Your task to perform on an android device: open app "PlayWell" (install if not already installed) Image 0: 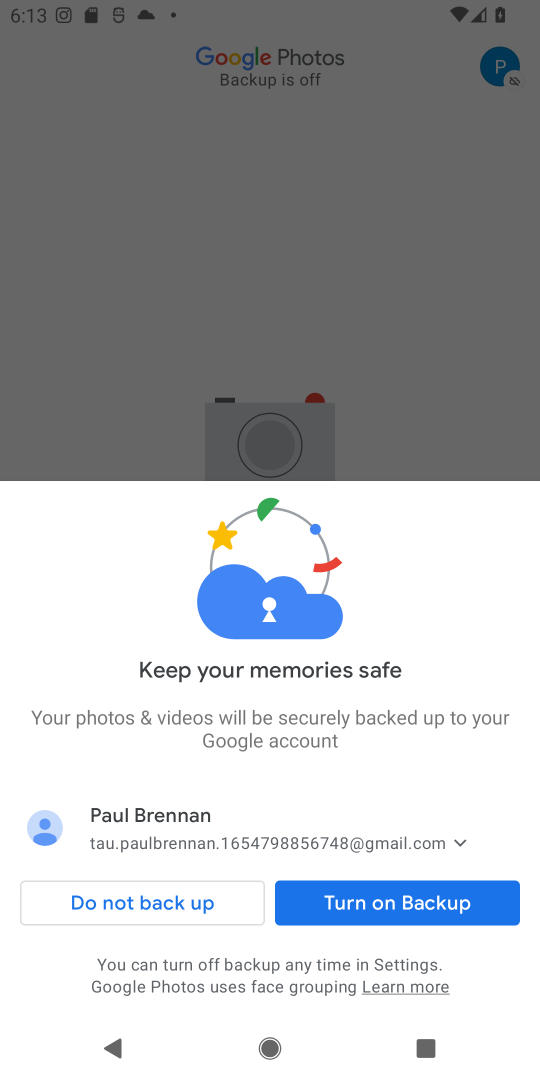
Step 0: press home button
Your task to perform on an android device: open app "PlayWell" (install if not already installed) Image 1: 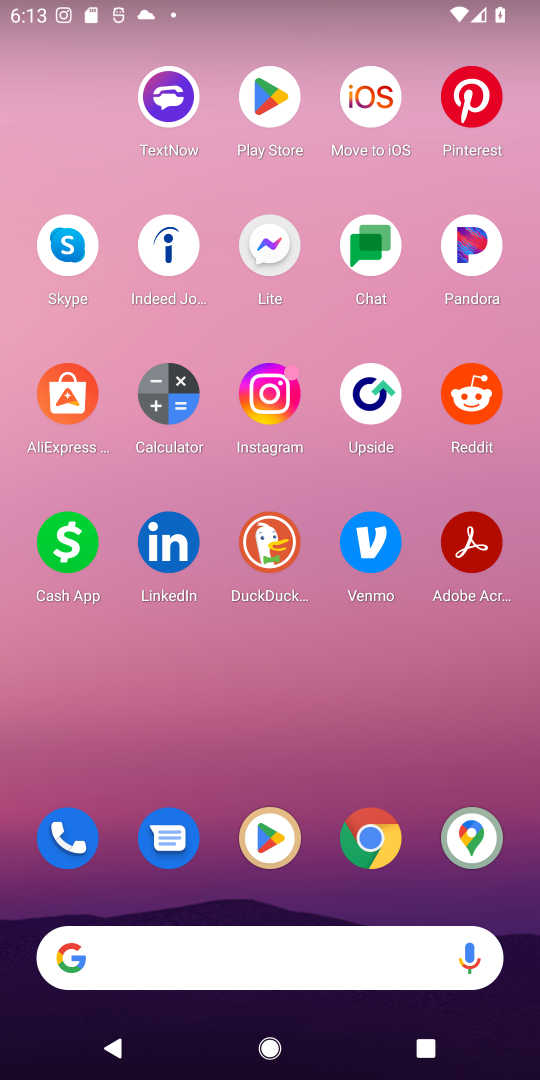
Step 1: click (273, 844)
Your task to perform on an android device: open app "PlayWell" (install if not already installed) Image 2: 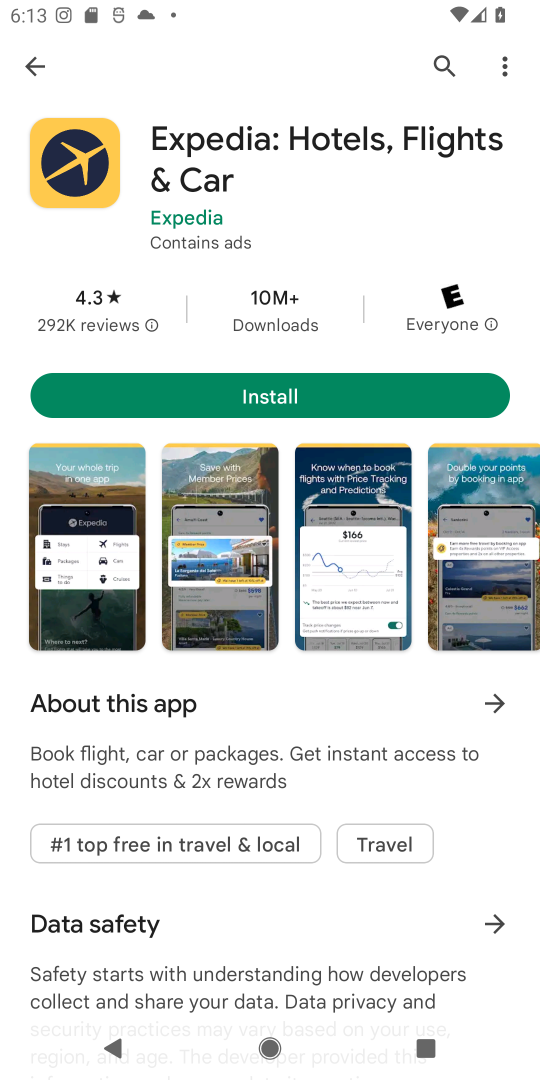
Step 2: click (440, 61)
Your task to perform on an android device: open app "PlayWell" (install if not already installed) Image 3: 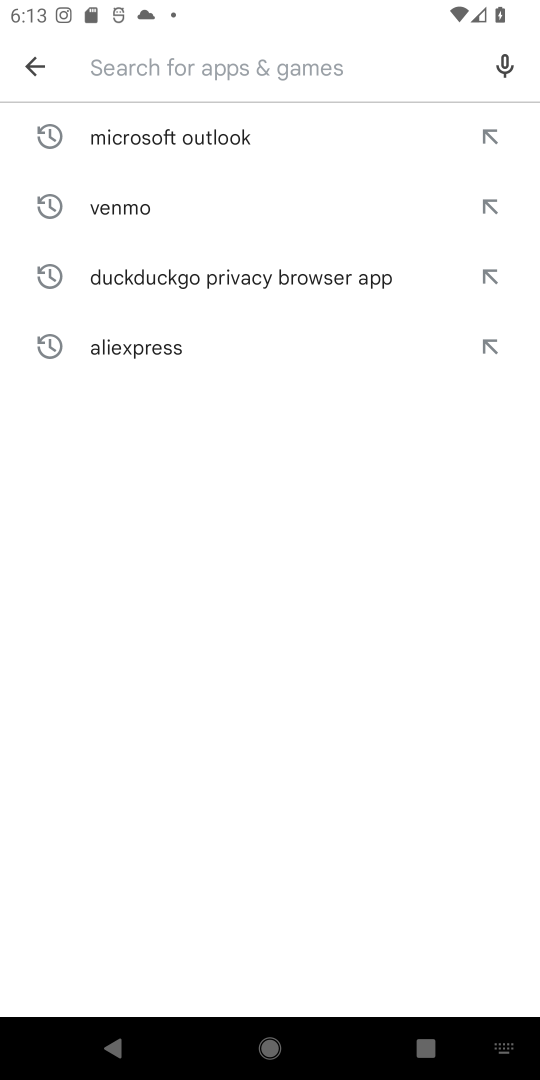
Step 3: type "PlayWell"
Your task to perform on an android device: open app "PlayWell" (install if not already installed) Image 4: 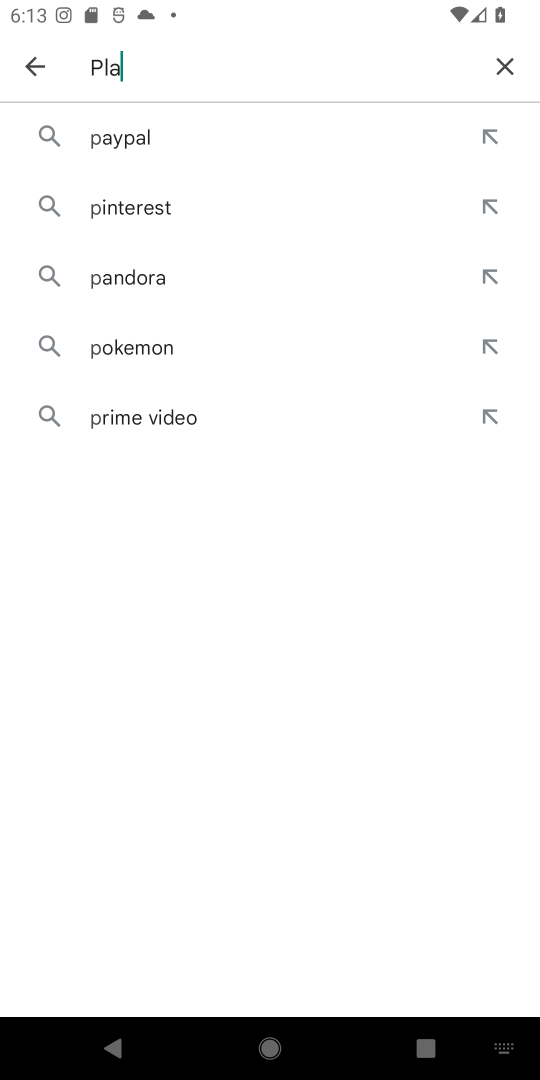
Step 4: type ""
Your task to perform on an android device: open app "PlayWell" (install if not already installed) Image 5: 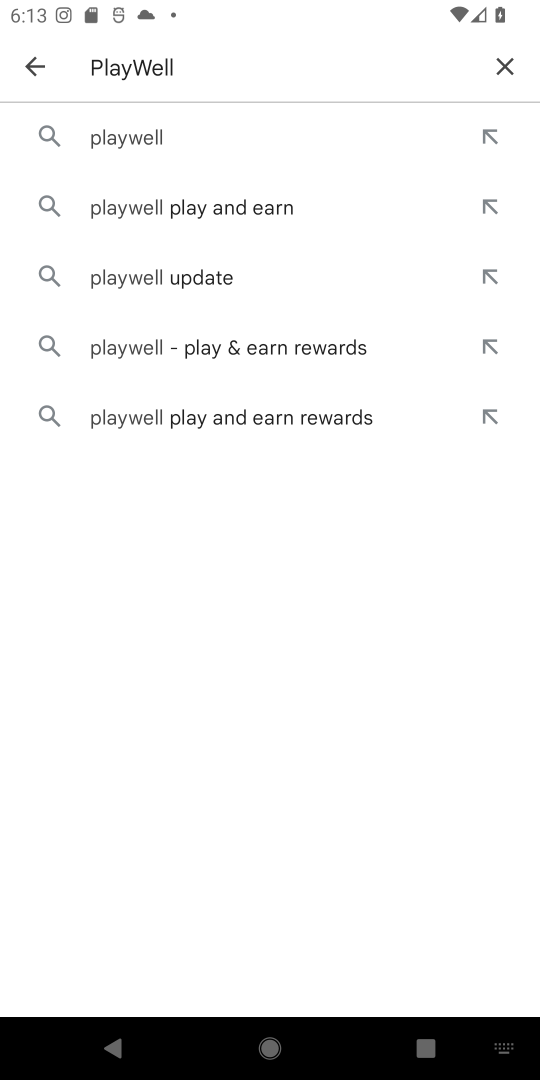
Step 5: click (139, 129)
Your task to perform on an android device: open app "PlayWell" (install if not already installed) Image 6: 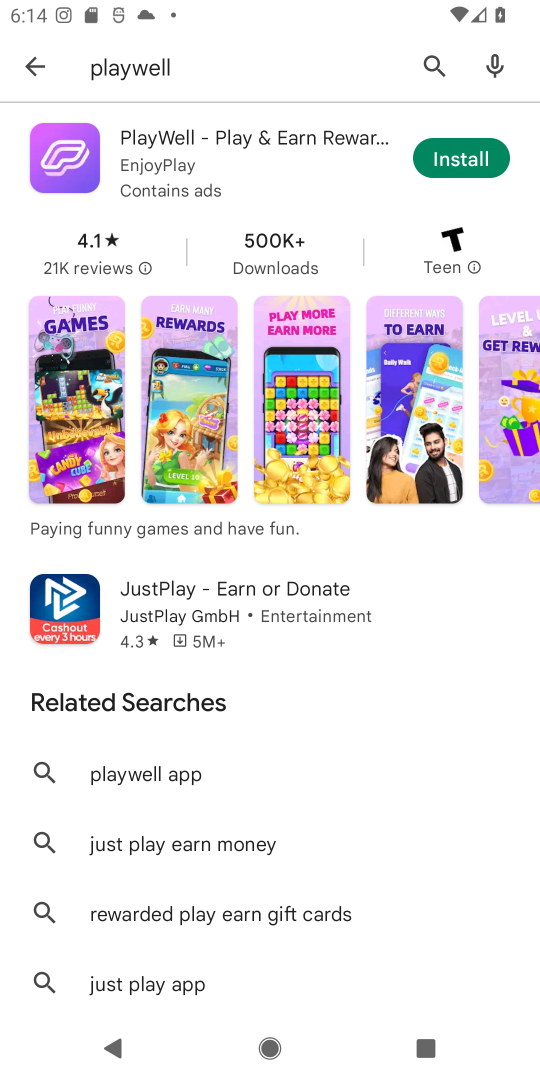
Step 6: click (465, 163)
Your task to perform on an android device: open app "PlayWell" (install if not already installed) Image 7: 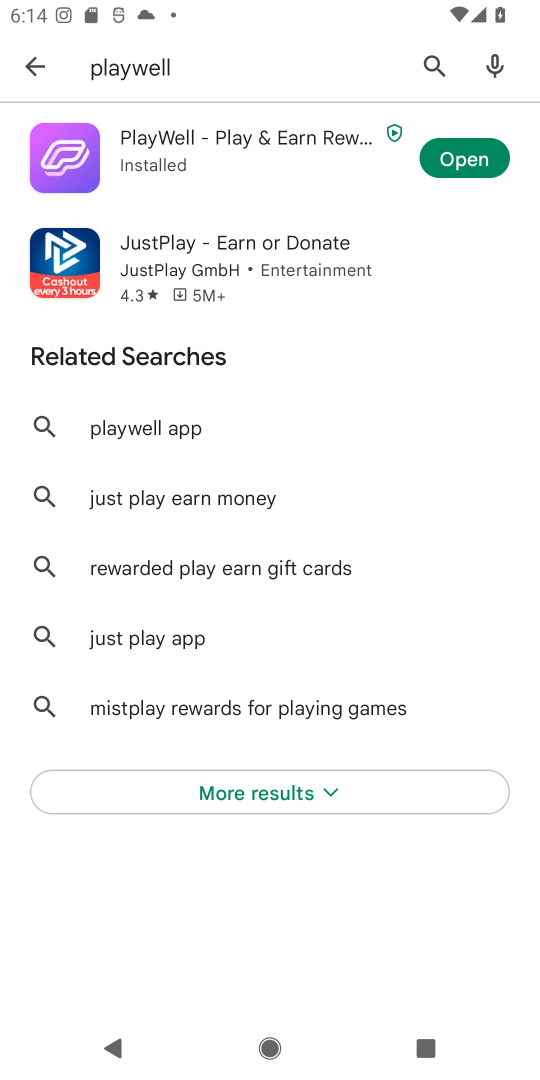
Step 7: click (449, 168)
Your task to perform on an android device: open app "PlayWell" (install if not already installed) Image 8: 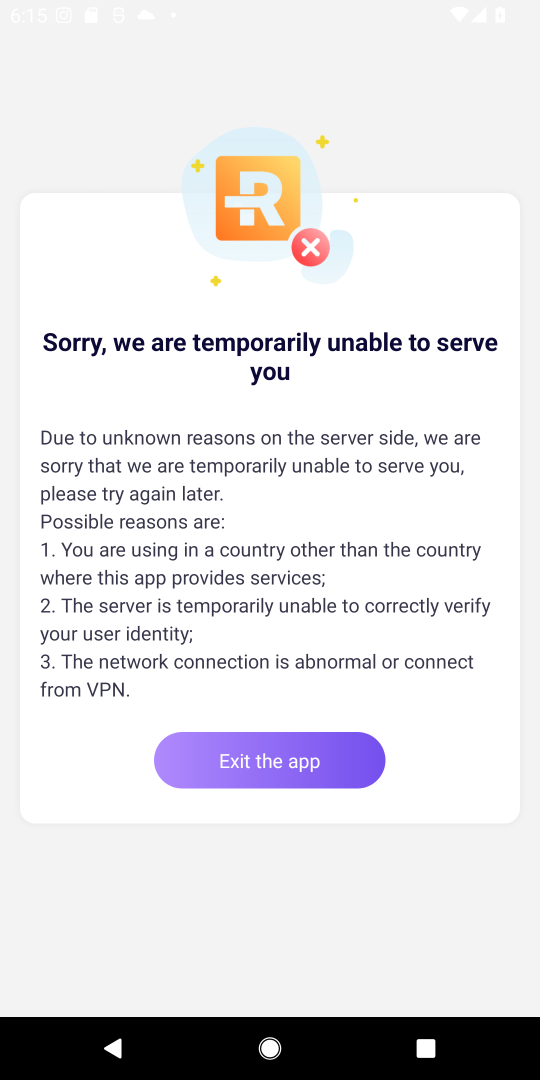
Step 8: task complete